Your task to perform on an android device: Go to Google maps Image 0: 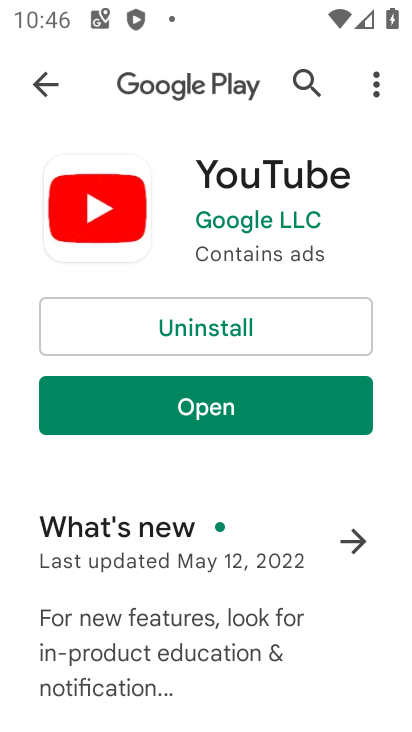
Step 0: press home button
Your task to perform on an android device: Go to Google maps Image 1: 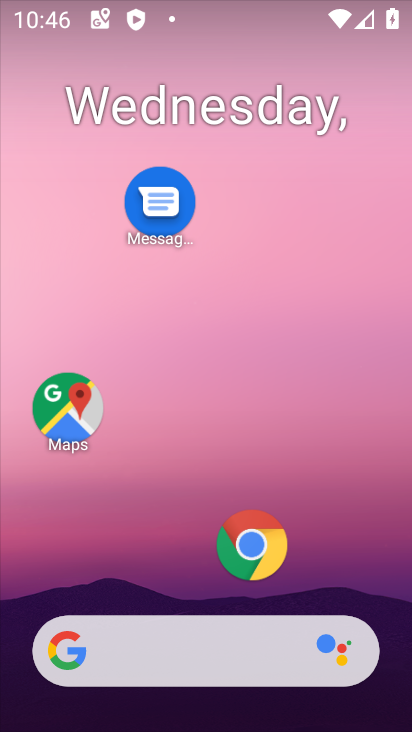
Step 1: click (85, 428)
Your task to perform on an android device: Go to Google maps Image 2: 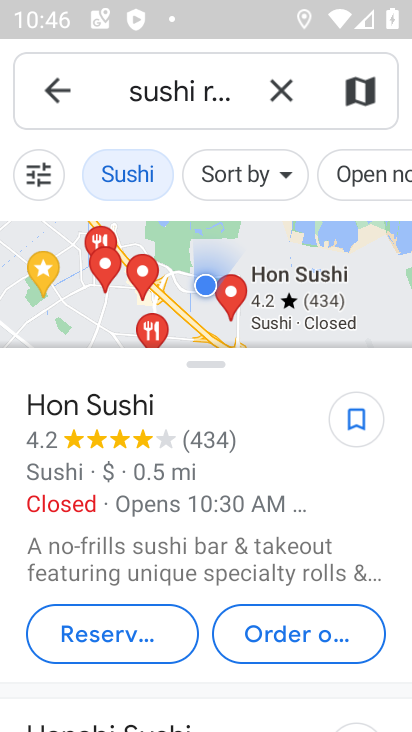
Step 2: task complete